Your task to perform on an android device: open a new tab in the chrome app Image 0: 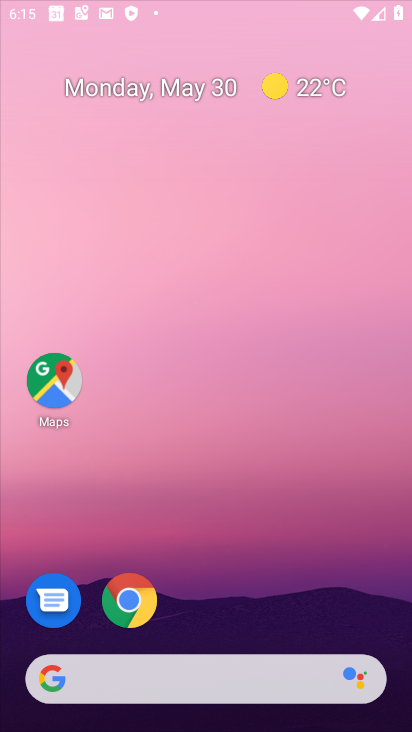
Step 0: press home button
Your task to perform on an android device: open a new tab in the chrome app Image 1: 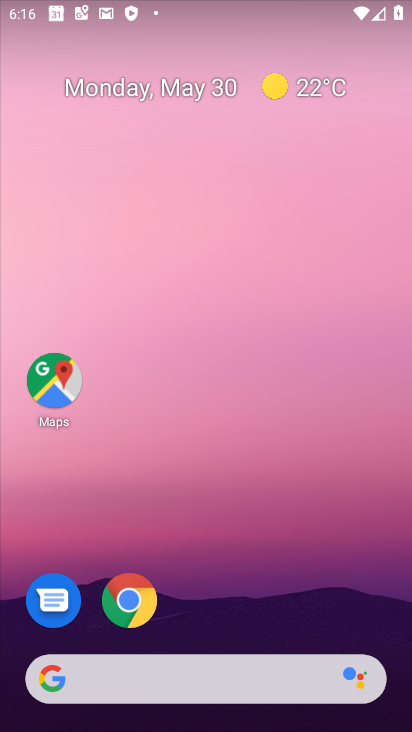
Step 1: click (141, 595)
Your task to perform on an android device: open a new tab in the chrome app Image 2: 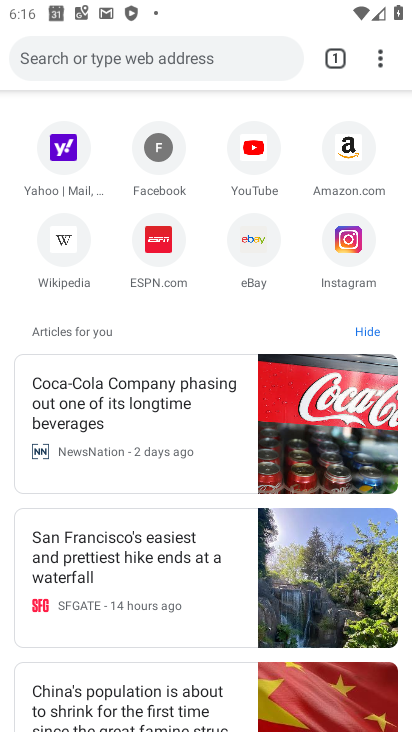
Step 2: click (339, 60)
Your task to perform on an android device: open a new tab in the chrome app Image 3: 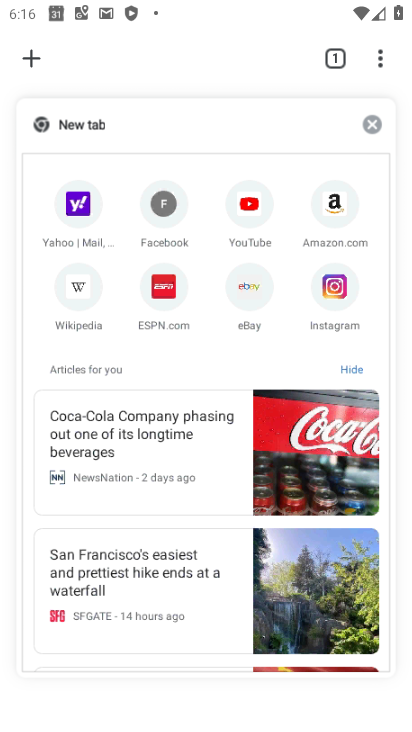
Step 3: click (33, 57)
Your task to perform on an android device: open a new tab in the chrome app Image 4: 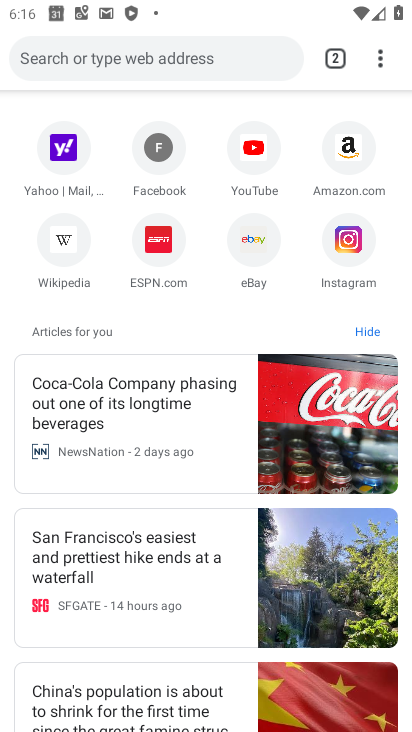
Step 4: task complete